Your task to perform on an android device: move an email to a new category in the gmail app Image 0: 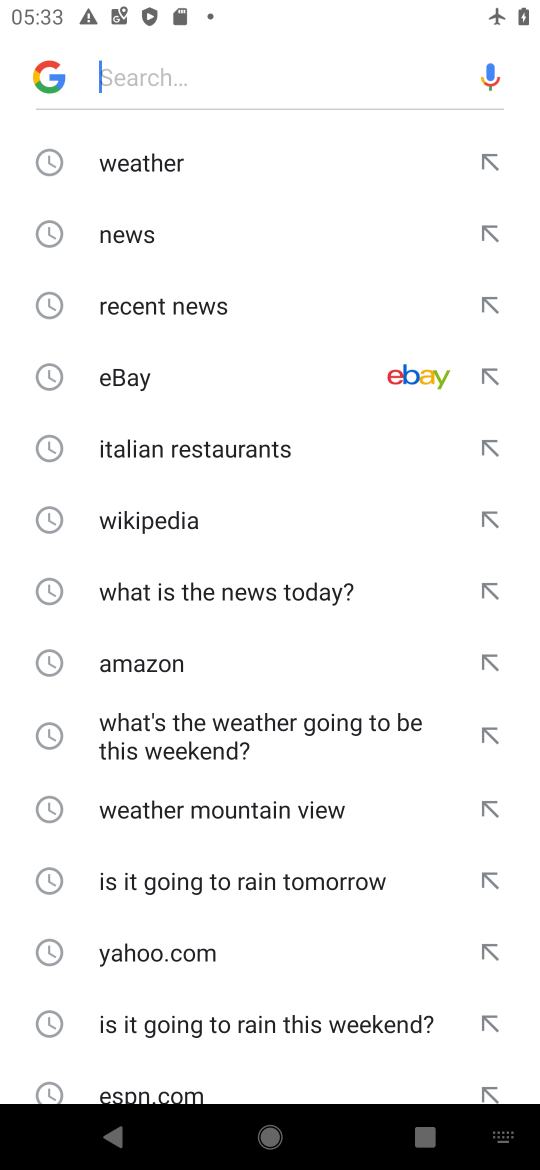
Step 0: press back button
Your task to perform on an android device: move an email to a new category in the gmail app Image 1: 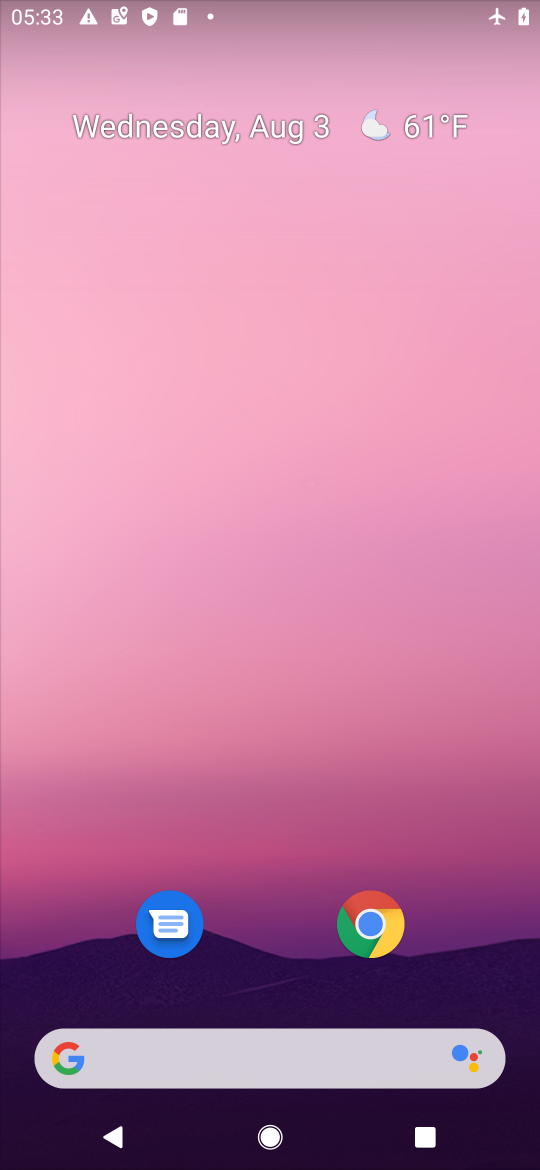
Step 1: drag from (267, 882) to (292, 349)
Your task to perform on an android device: move an email to a new category in the gmail app Image 2: 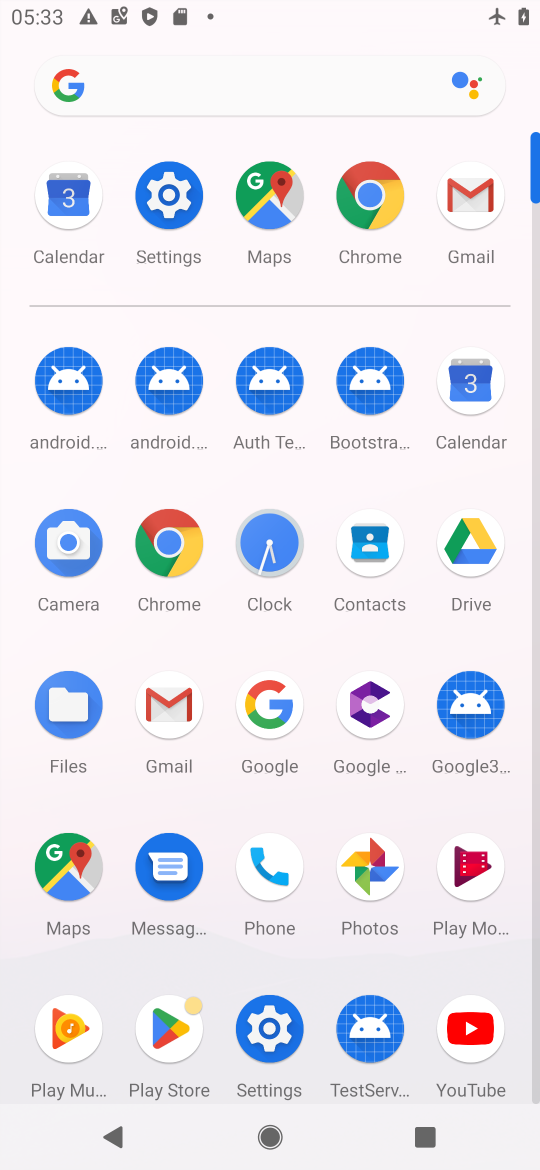
Step 2: click (464, 206)
Your task to perform on an android device: move an email to a new category in the gmail app Image 3: 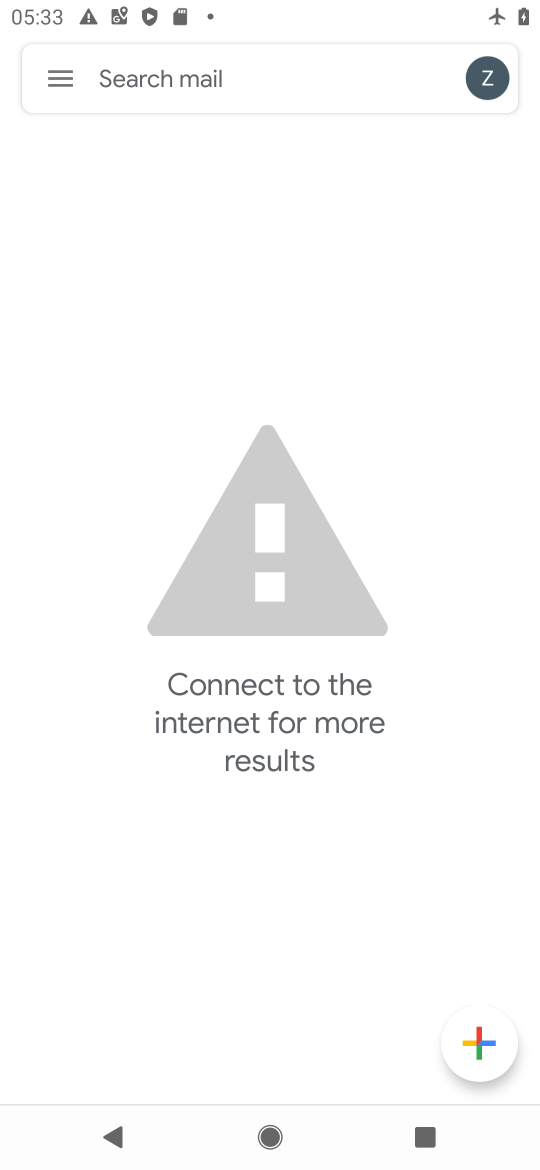
Step 3: click (62, 66)
Your task to perform on an android device: move an email to a new category in the gmail app Image 4: 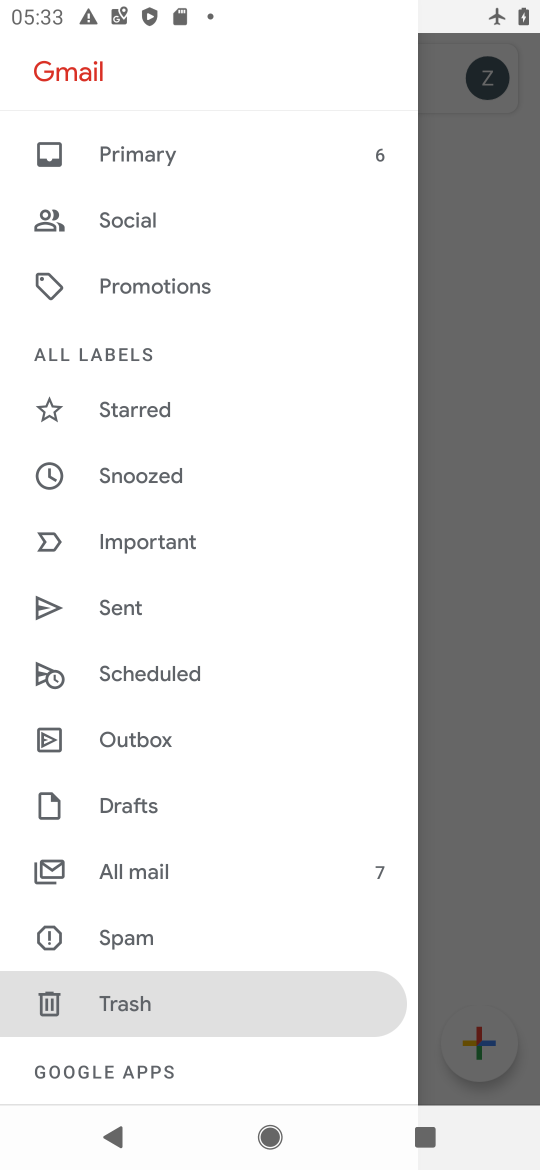
Step 4: click (211, 869)
Your task to perform on an android device: move an email to a new category in the gmail app Image 5: 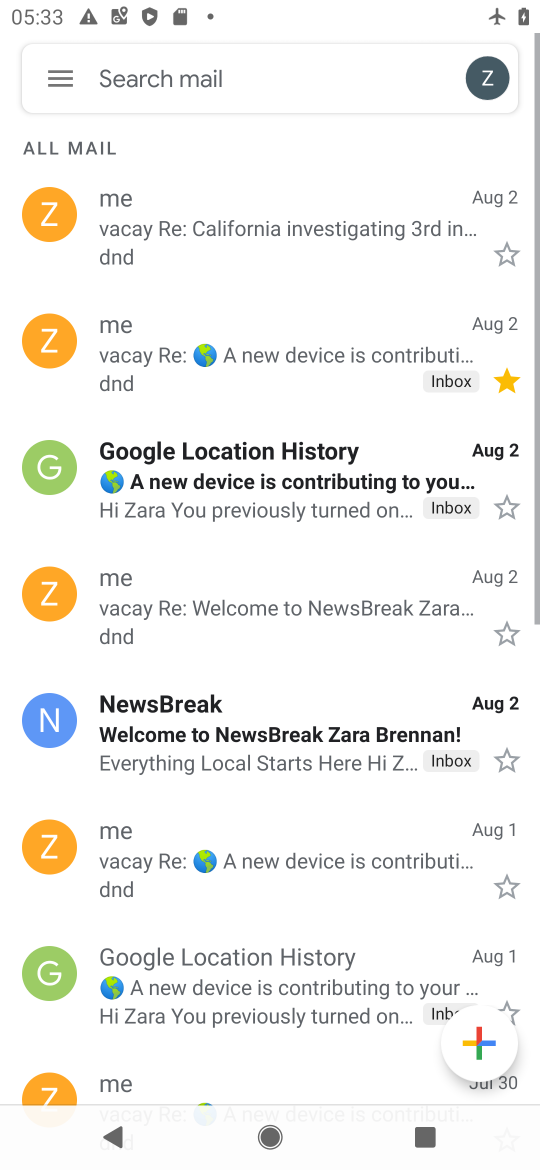
Step 5: click (221, 349)
Your task to perform on an android device: move an email to a new category in the gmail app Image 6: 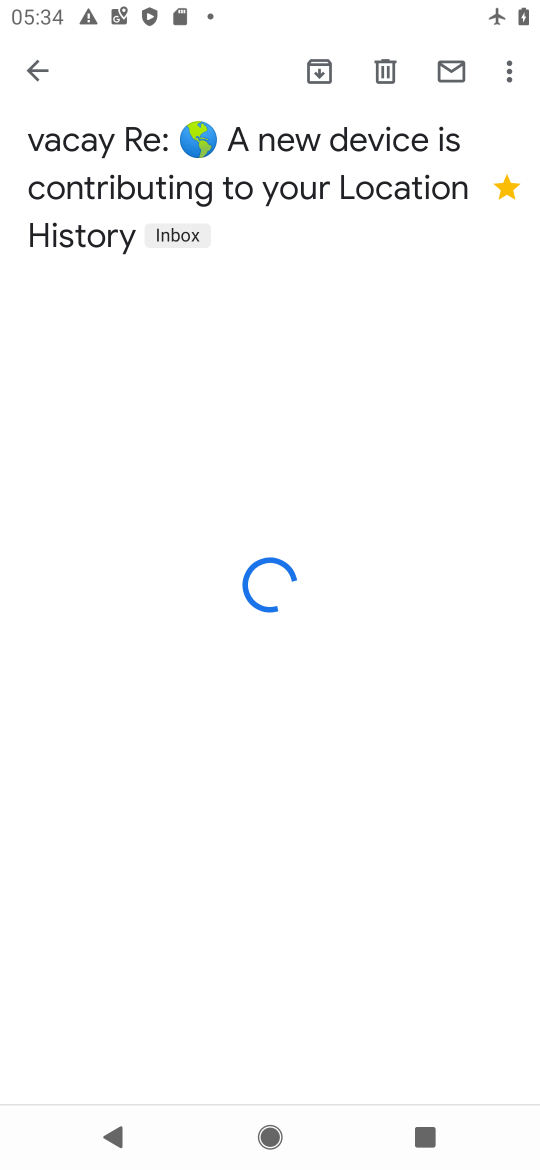
Step 6: click (511, 69)
Your task to perform on an android device: move an email to a new category in the gmail app Image 7: 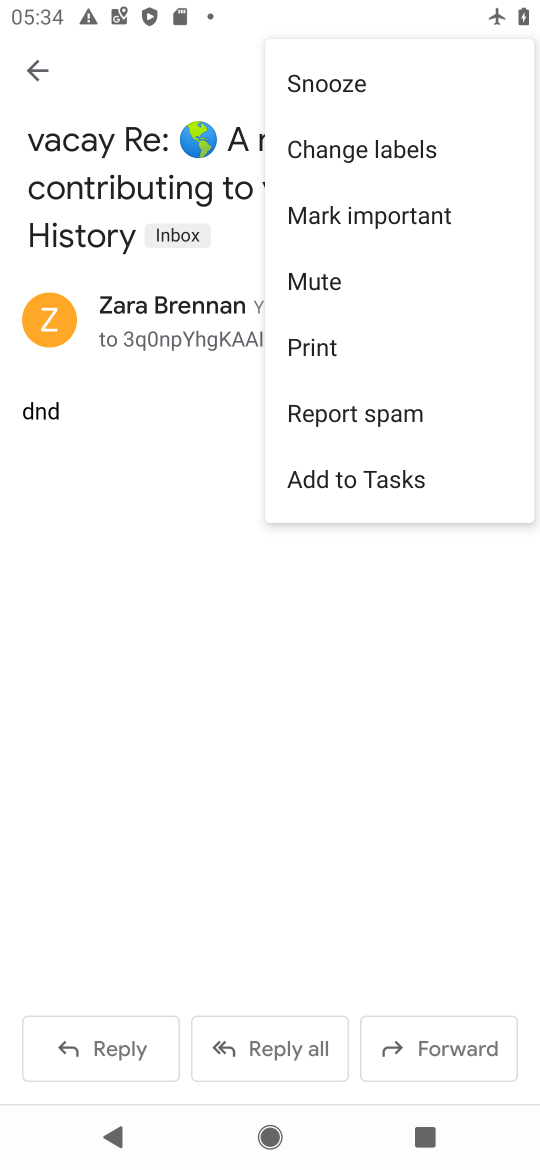
Step 7: click (349, 166)
Your task to perform on an android device: move an email to a new category in the gmail app Image 8: 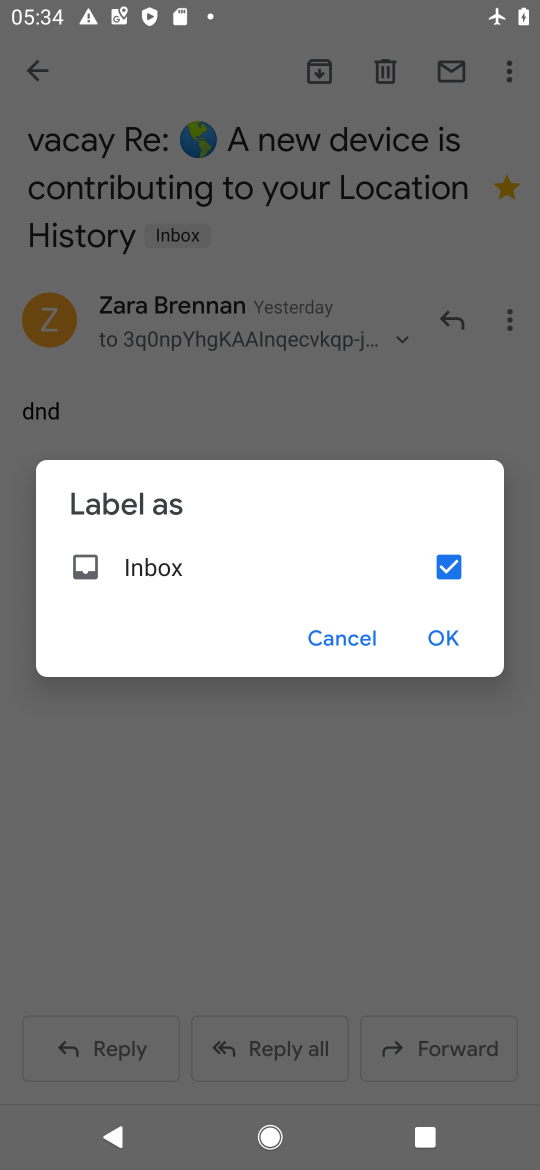
Step 8: click (414, 622)
Your task to perform on an android device: move an email to a new category in the gmail app Image 9: 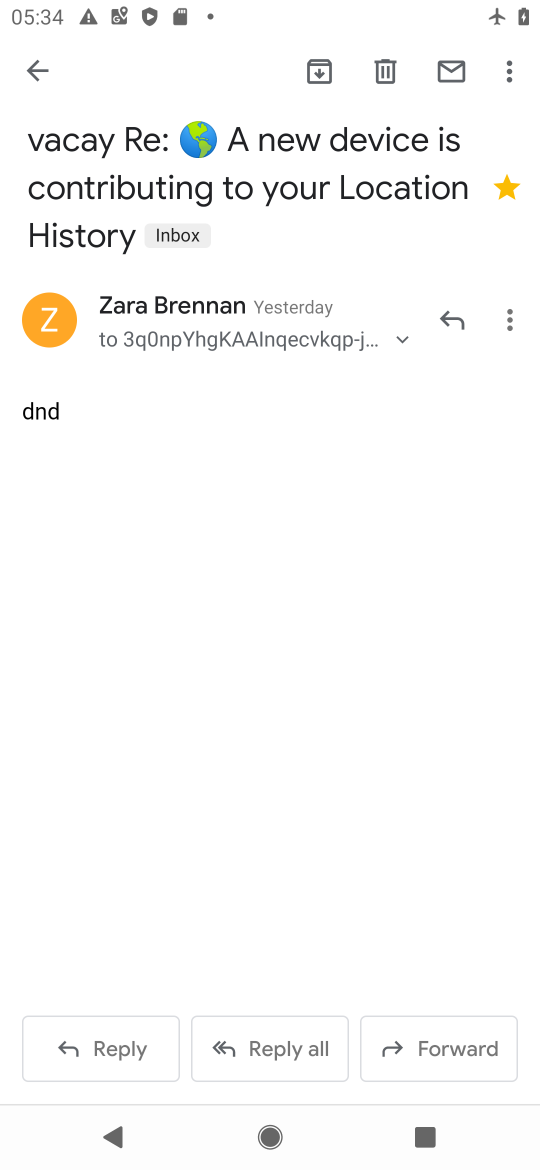
Step 9: task complete